Your task to perform on an android device: turn on wifi Image 0: 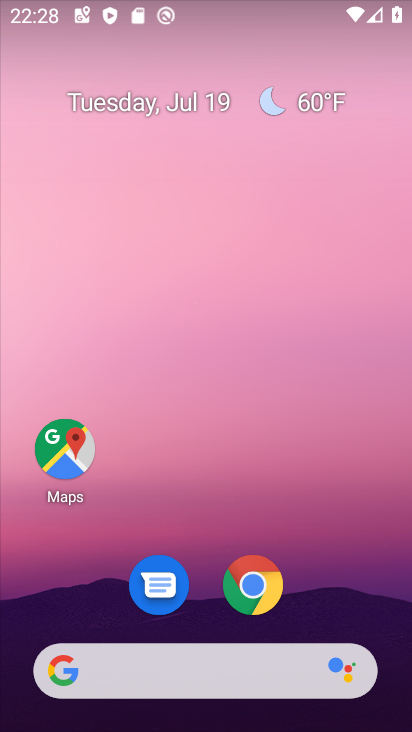
Step 0: drag from (301, 537) to (356, 60)
Your task to perform on an android device: turn on wifi Image 1: 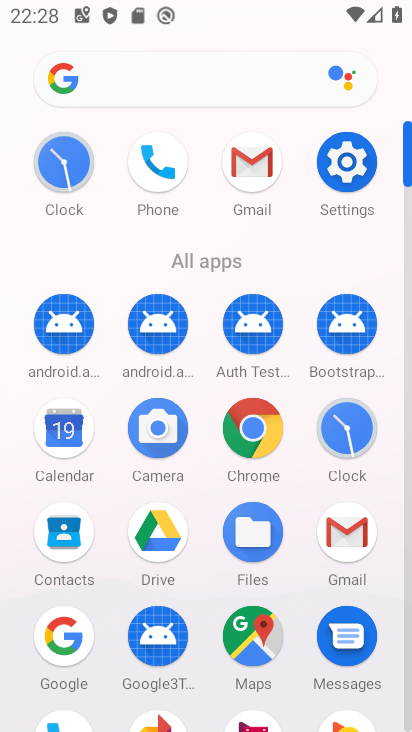
Step 1: click (348, 165)
Your task to perform on an android device: turn on wifi Image 2: 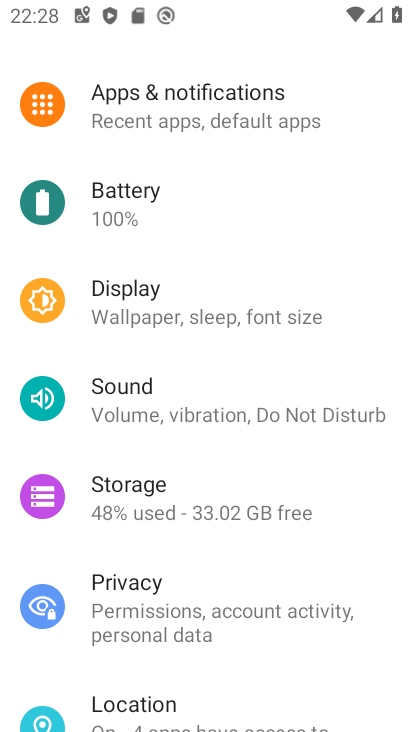
Step 2: drag from (215, 162) to (215, 680)
Your task to perform on an android device: turn on wifi Image 3: 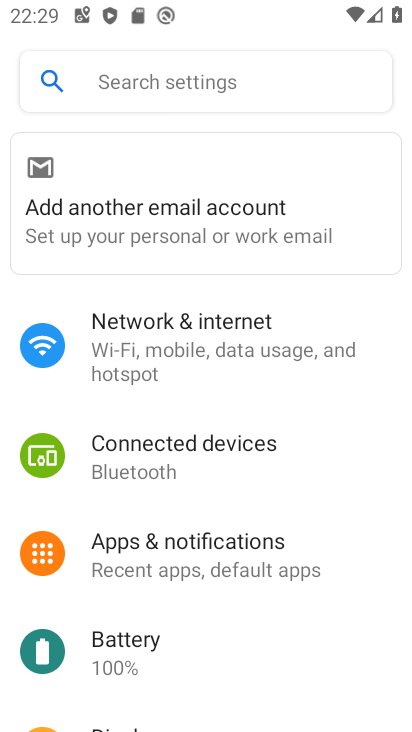
Step 3: click (238, 346)
Your task to perform on an android device: turn on wifi Image 4: 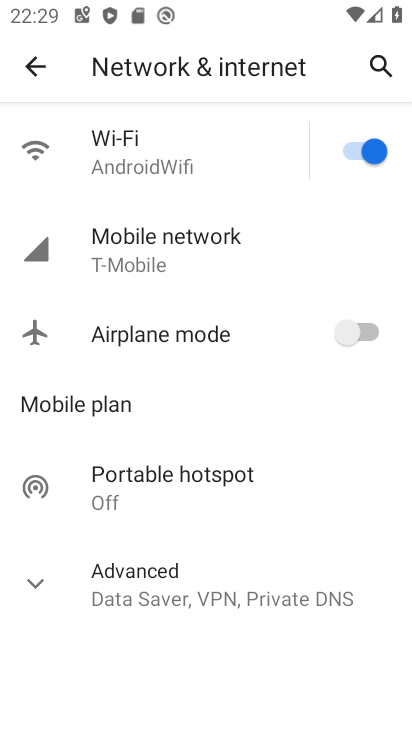
Step 4: task complete